Your task to perform on an android device: toggle notification dots Image 0: 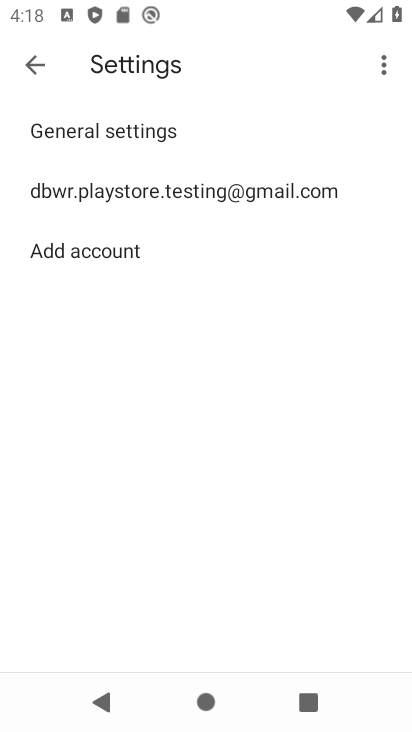
Step 0: press home button
Your task to perform on an android device: toggle notification dots Image 1: 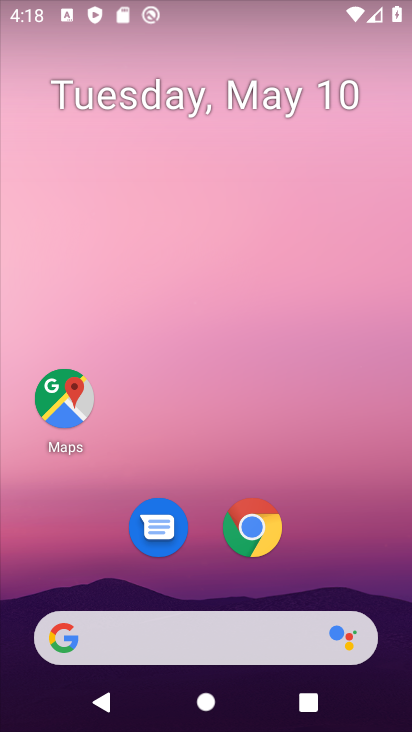
Step 1: drag from (304, 484) to (301, 17)
Your task to perform on an android device: toggle notification dots Image 2: 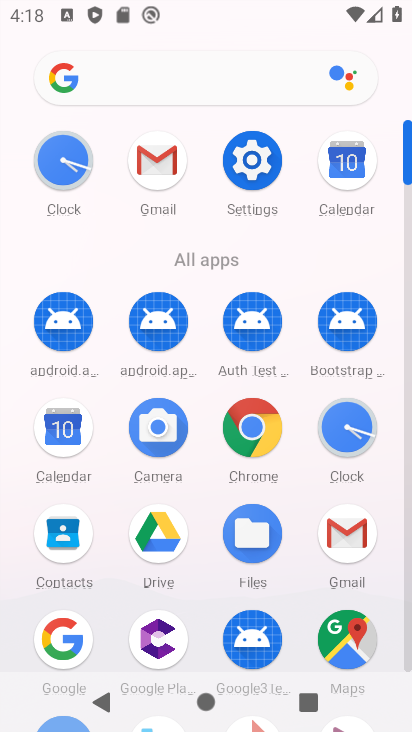
Step 2: click (253, 147)
Your task to perform on an android device: toggle notification dots Image 3: 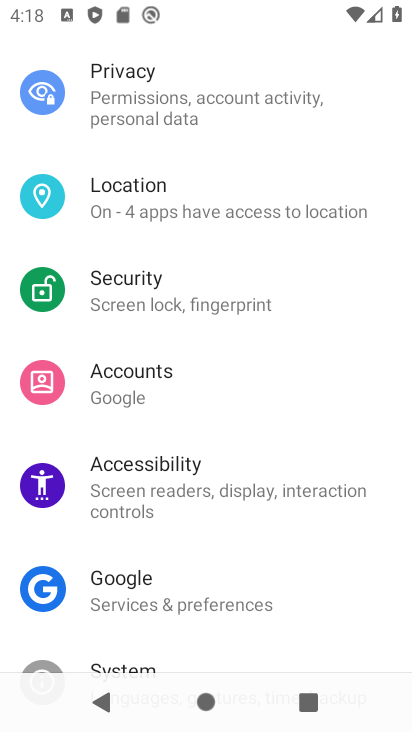
Step 3: drag from (250, 171) to (230, 670)
Your task to perform on an android device: toggle notification dots Image 4: 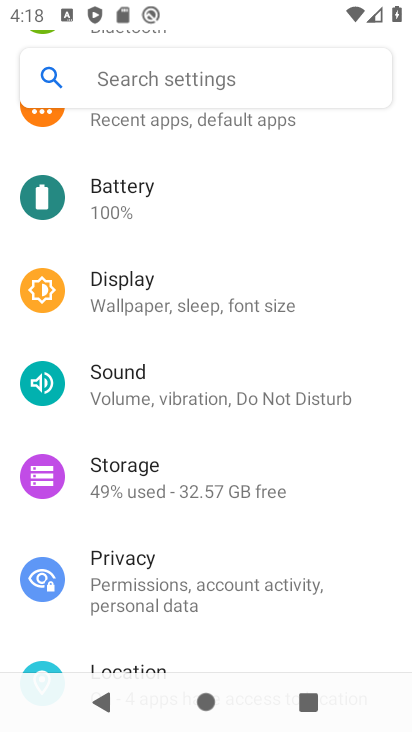
Step 4: drag from (258, 142) to (245, 595)
Your task to perform on an android device: toggle notification dots Image 5: 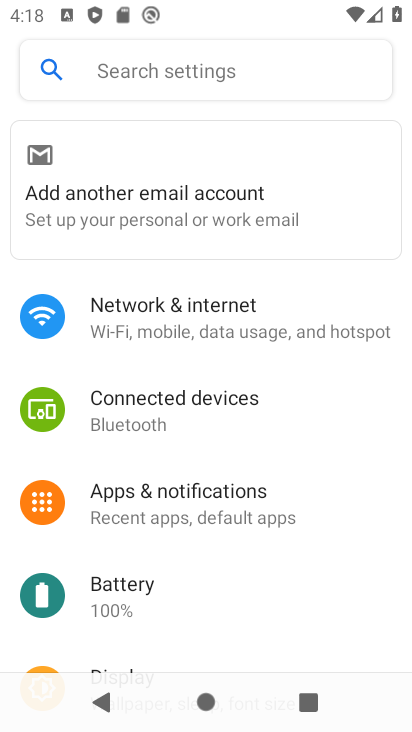
Step 5: click (235, 508)
Your task to perform on an android device: toggle notification dots Image 6: 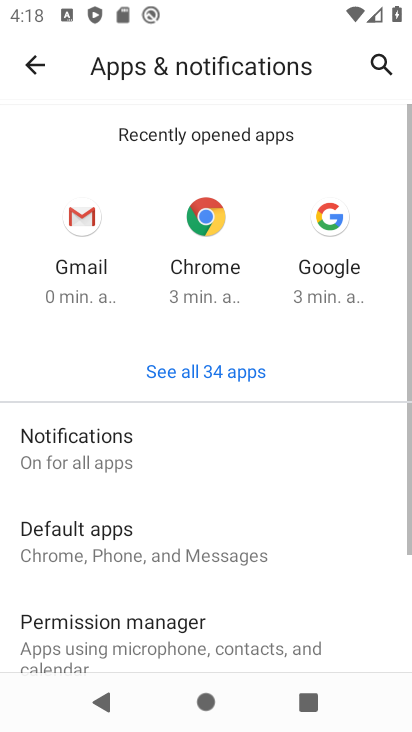
Step 6: click (219, 455)
Your task to perform on an android device: toggle notification dots Image 7: 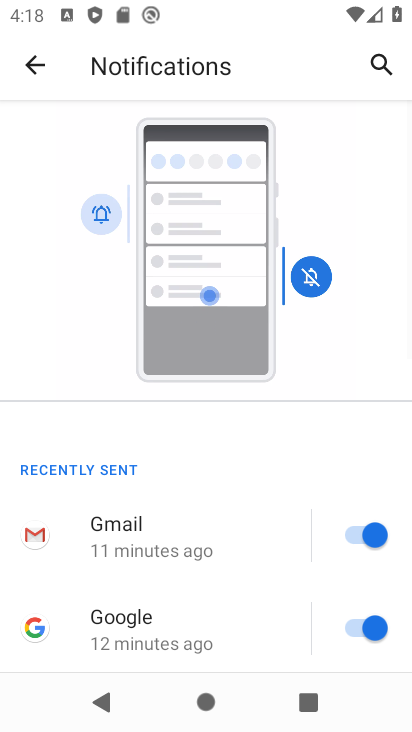
Step 7: drag from (224, 572) to (289, 60)
Your task to perform on an android device: toggle notification dots Image 8: 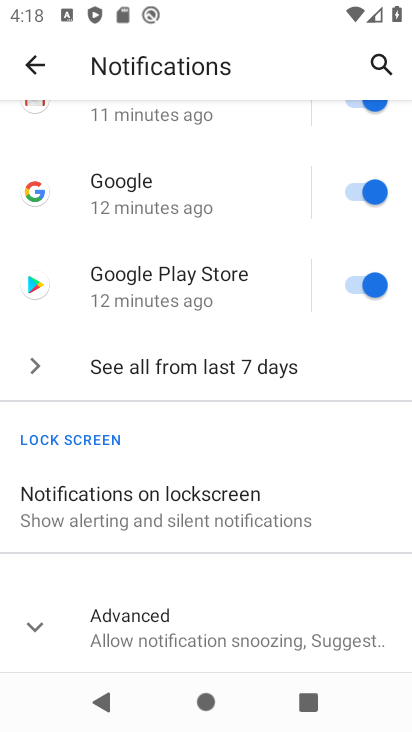
Step 8: click (31, 623)
Your task to perform on an android device: toggle notification dots Image 9: 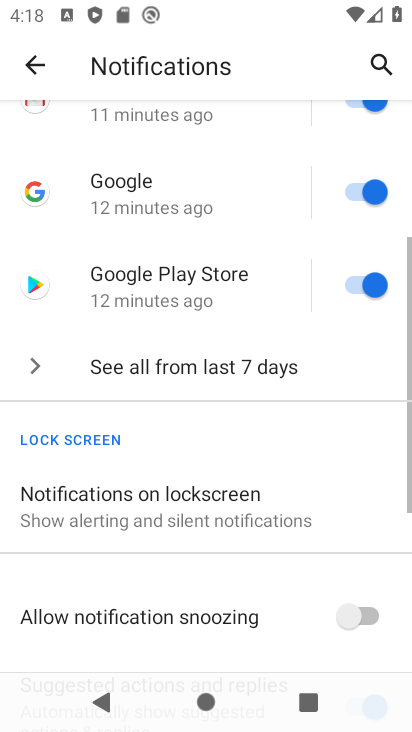
Step 9: drag from (211, 568) to (247, 93)
Your task to perform on an android device: toggle notification dots Image 10: 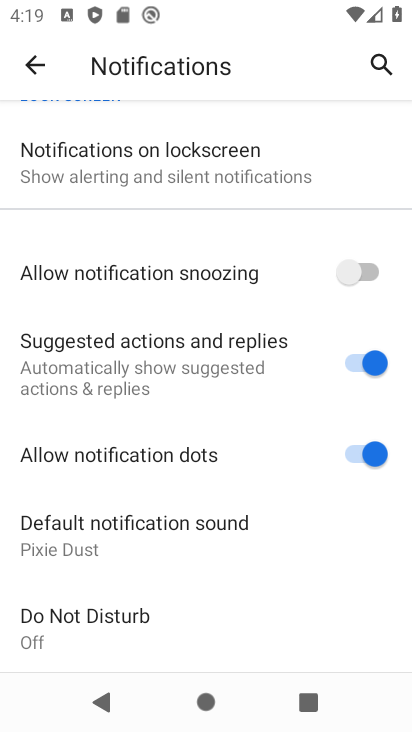
Step 10: click (348, 448)
Your task to perform on an android device: toggle notification dots Image 11: 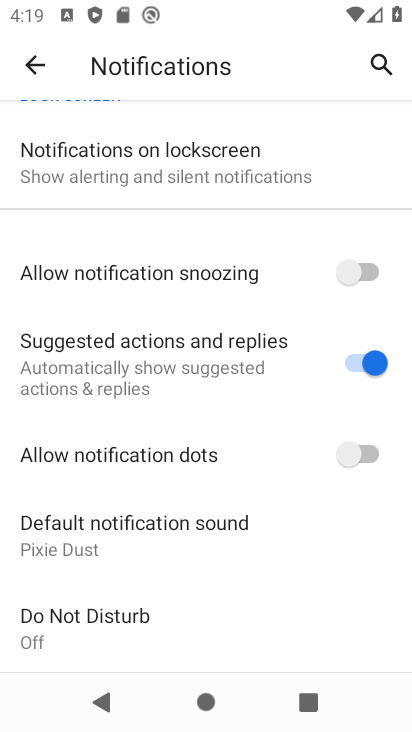
Step 11: task complete